Your task to perform on an android device: Open Google Maps and go to "Timeline" Image 0: 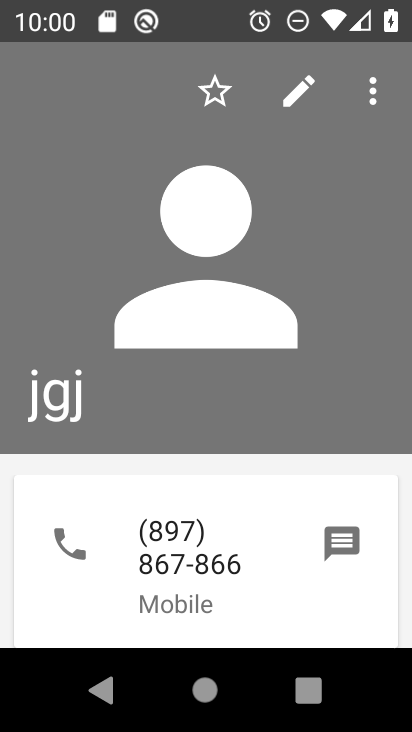
Step 0: press home button
Your task to perform on an android device: Open Google Maps and go to "Timeline" Image 1: 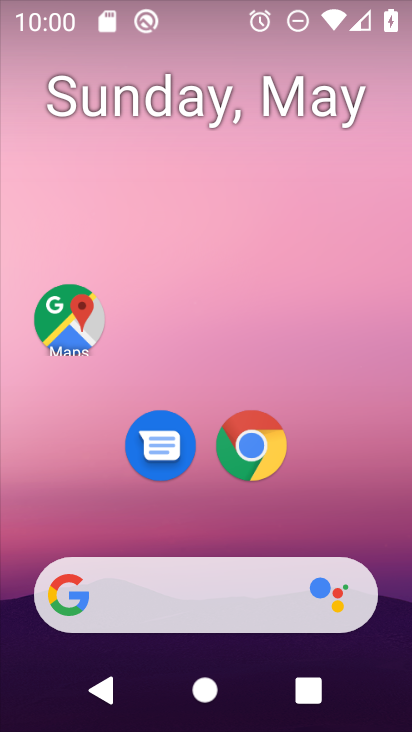
Step 1: drag from (236, 607) to (242, 165)
Your task to perform on an android device: Open Google Maps and go to "Timeline" Image 2: 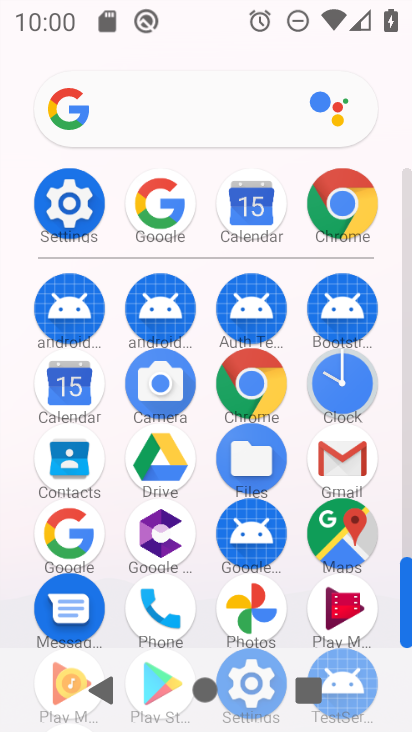
Step 2: click (341, 545)
Your task to perform on an android device: Open Google Maps and go to "Timeline" Image 3: 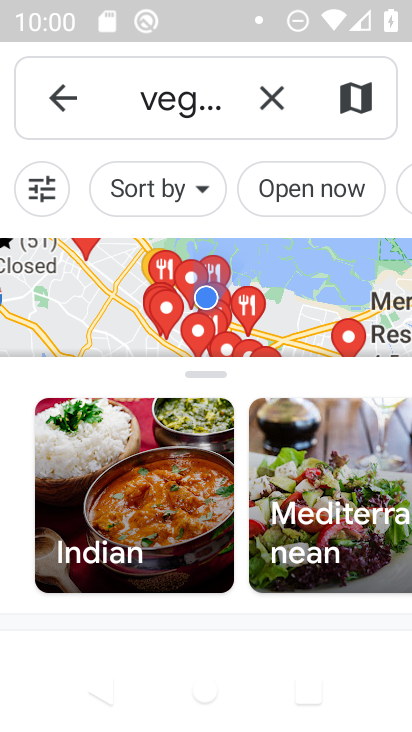
Step 3: click (76, 100)
Your task to perform on an android device: Open Google Maps and go to "Timeline" Image 4: 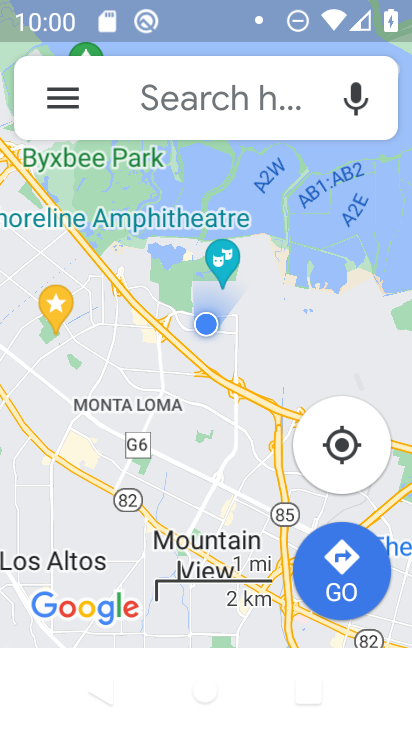
Step 4: click (76, 100)
Your task to perform on an android device: Open Google Maps and go to "Timeline" Image 5: 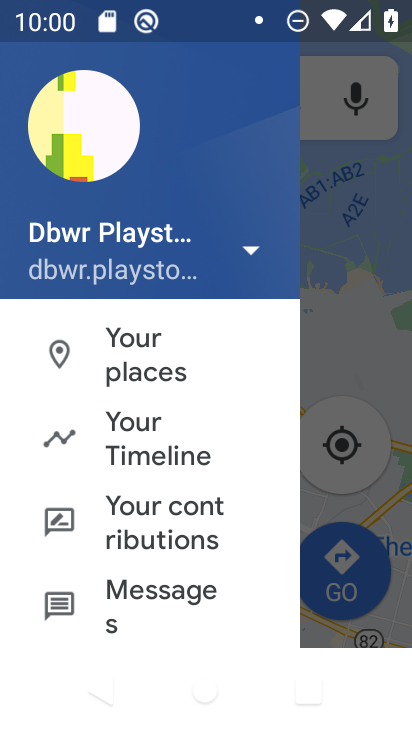
Step 5: click (151, 437)
Your task to perform on an android device: Open Google Maps and go to "Timeline" Image 6: 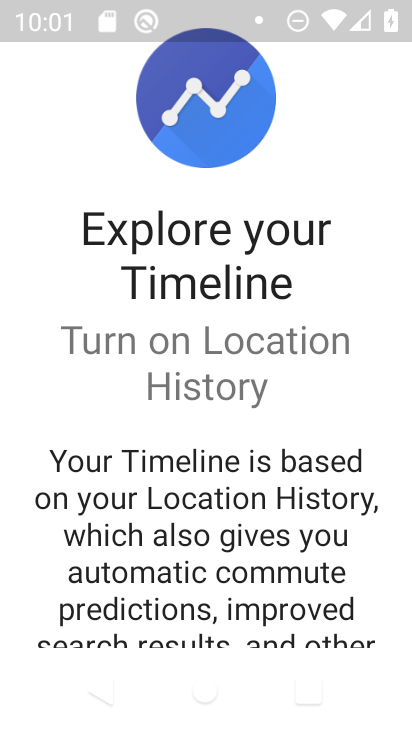
Step 6: drag from (227, 381) to (182, 195)
Your task to perform on an android device: Open Google Maps and go to "Timeline" Image 7: 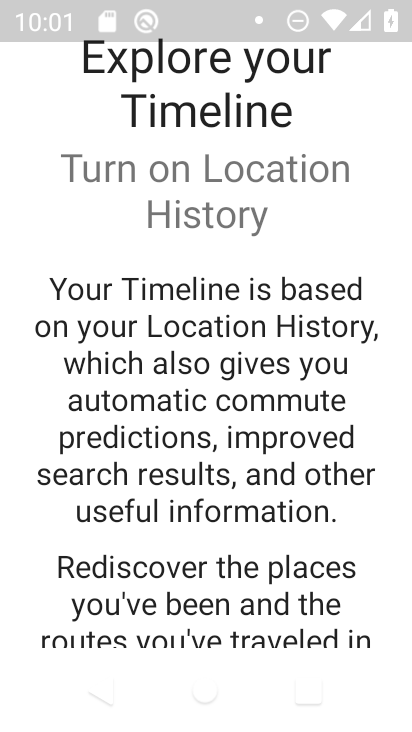
Step 7: drag from (214, 451) to (123, 13)
Your task to perform on an android device: Open Google Maps and go to "Timeline" Image 8: 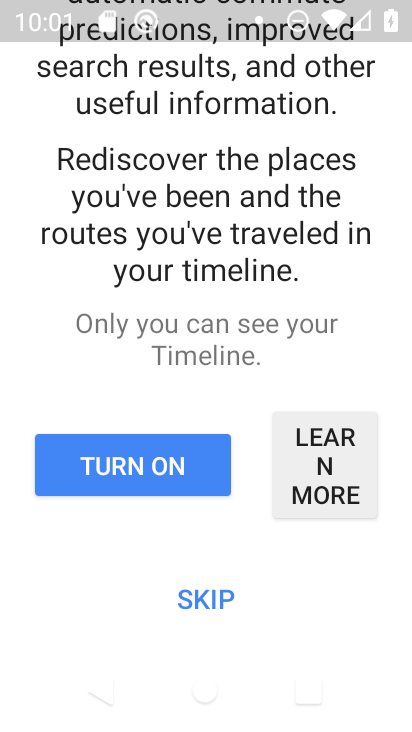
Step 8: click (221, 591)
Your task to perform on an android device: Open Google Maps and go to "Timeline" Image 9: 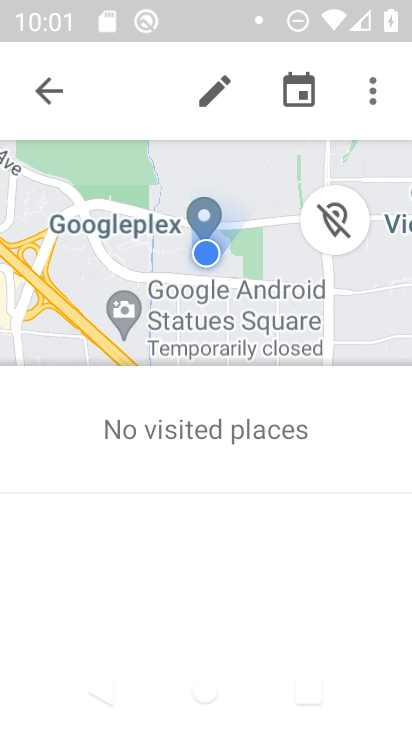
Step 9: task complete